Your task to perform on an android device: find which apps use the phone's location Image 0: 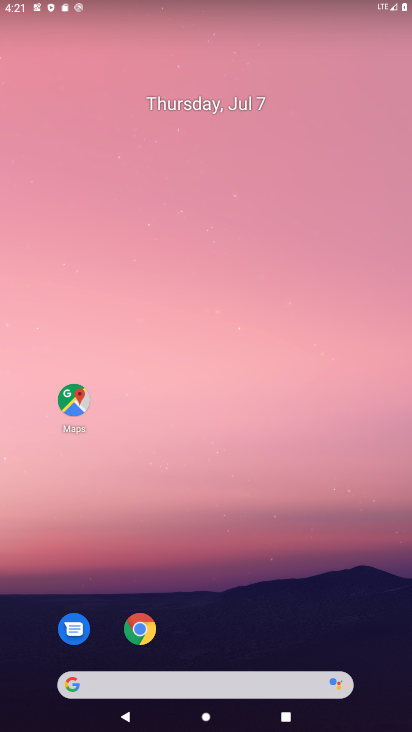
Step 0: drag from (199, 630) to (174, 252)
Your task to perform on an android device: find which apps use the phone's location Image 1: 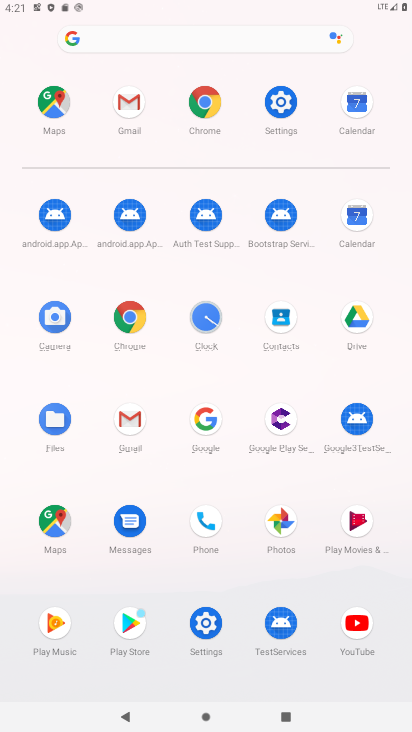
Step 1: click (271, 101)
Your task to perform on an android device: find which apps use the phone's location Image 2: 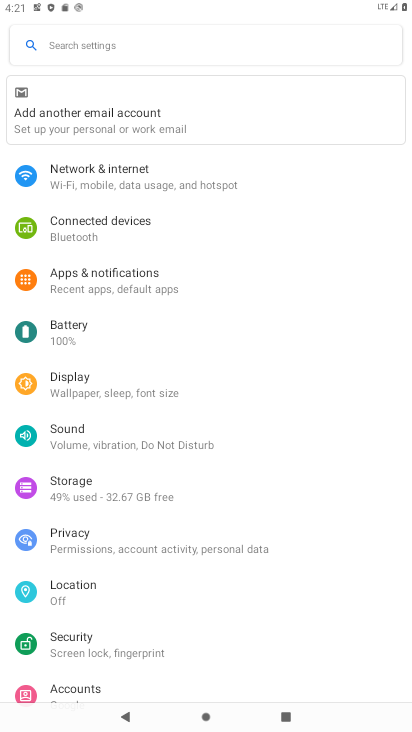
Step 2: click (68, 594)
Your task to perform on an android device: find which apps use the phone's location Image 3: 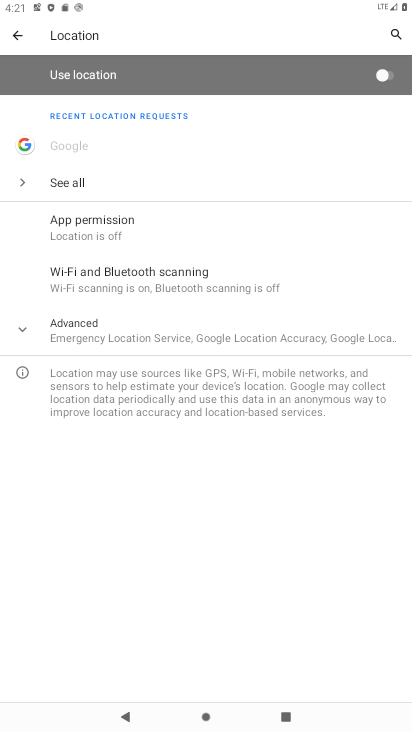
Step 3: task complete